Your task to perform on an android device: Open Google Chrome and click the shortcut for Amazon.com Image 0: 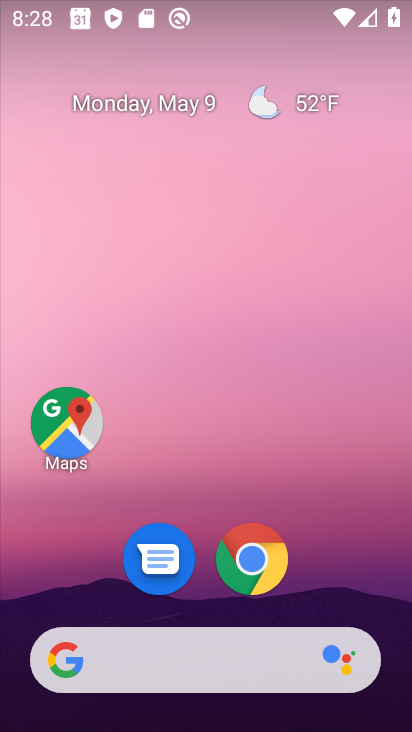
Step 0: click (265, 552)
Your task to perform on an android device: Open Google Chrome and click the shortcut for Amazon.com Image 1: 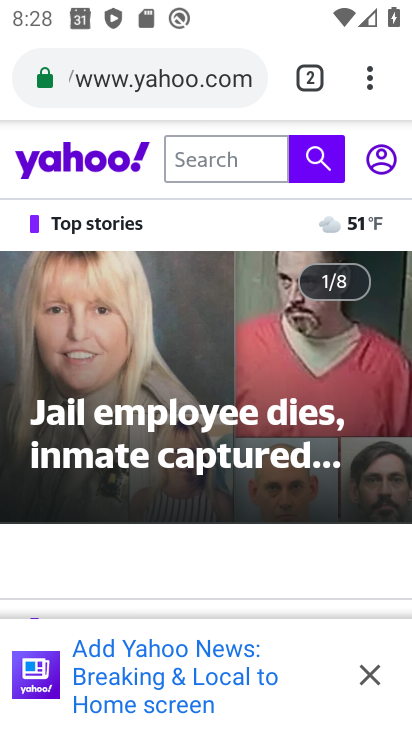
Step 1: click (315, 64)
Your task to perform on an android device: Open Google Chrome and click the shortcut for Amazon.com Image 2: 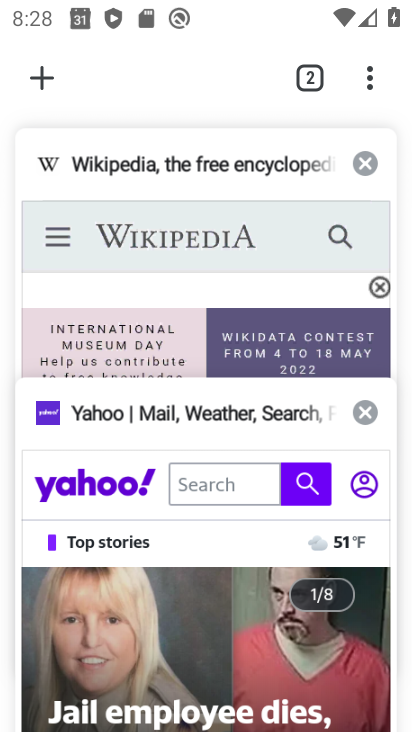
Step 2: click (43, 70)
Your task to perform on an android device: Open Google Chrome and click the shortcut for Amazon.com Image 3: 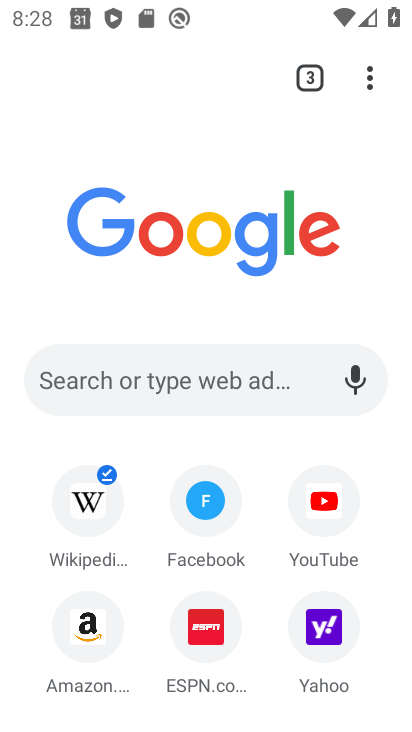
Step 3: click (97, 606)
Your task to perform on an android device: Open Google Chrome and click the shortcut for Amazon.com Image 4: 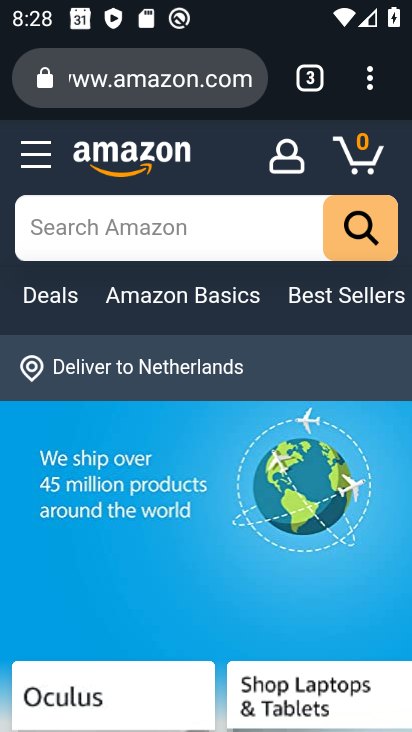
Step 4: task complete